Your task to perform on an android device: Play the last video I watched on Youtube Image 0: 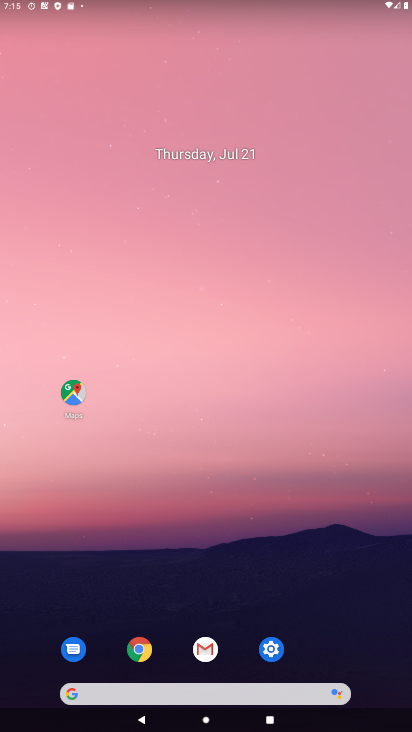
Step 0: drag from (327, 692) to (294, 206)
Your task to perform on an android device: Play the last video I watched on Youtube Image 1: 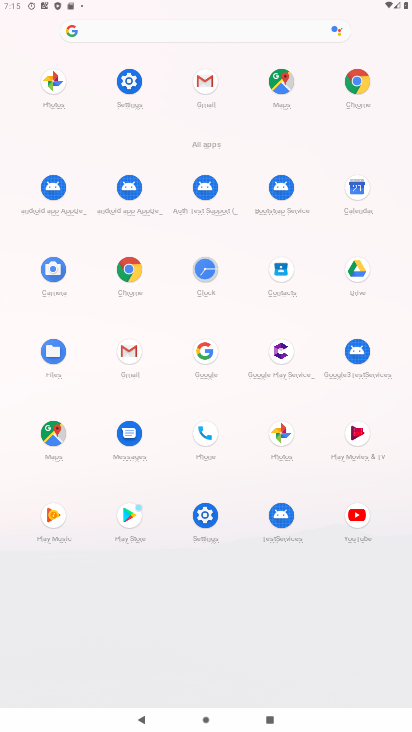
Step 1: click (352, 518)
Your task to perform on an android device: Play the last video I watched on Youtube Image 2: 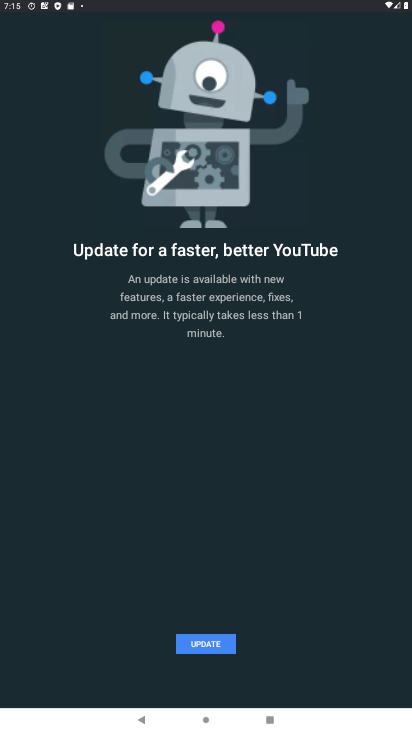
Step 2: click (213, 653)
Your task to perform on an android device: Play the last video I watched on Youtube Image 3: 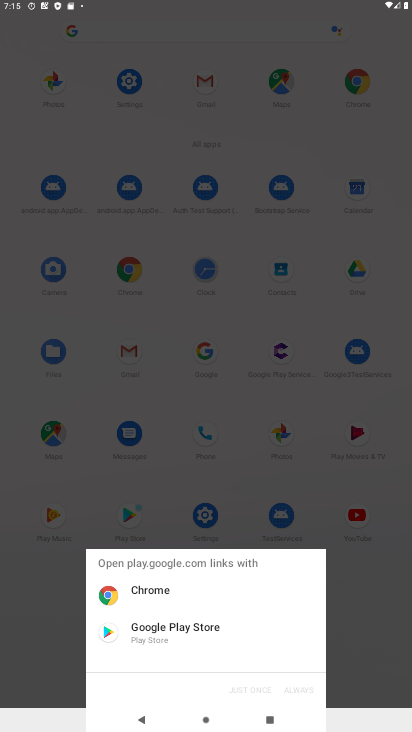
Step 3: click (176, 636)
Your task to perform on an android device: Play the last video I watched on Youtube Image 4: 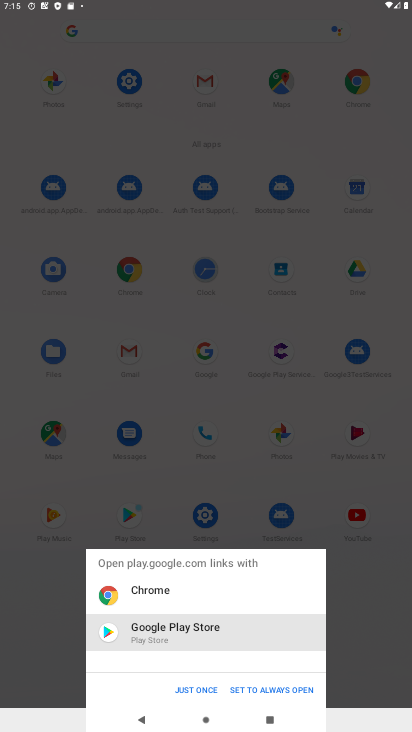
Step 4: click (198, 692)
Your task to perform on an android device: Play the last video I watched on Youtube Image 5: 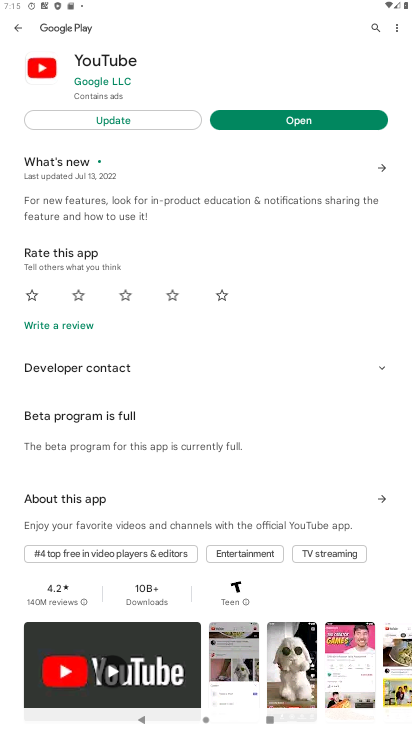
Step 5: click (135, 114)
Your task to perform on an android device: Play the last video I watched on Youtube Image 6: 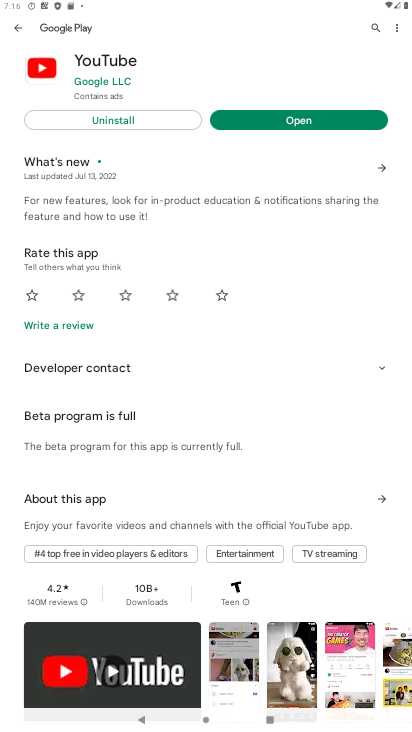
Step 6: click (258, 117)
Your task to perform on an android device: Play the last video I watched on Youtube Image 7: 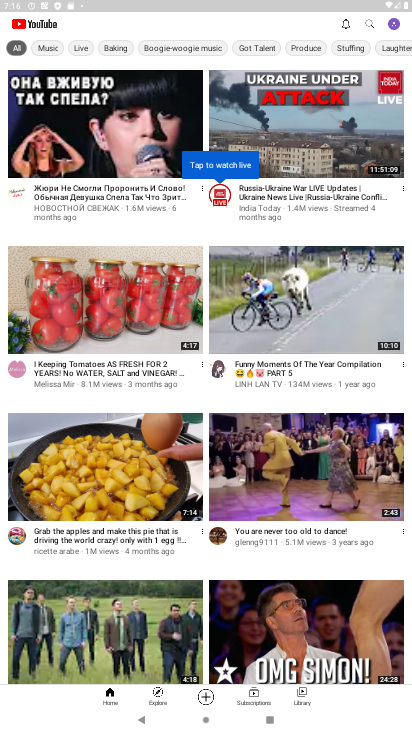
Step 7: click (303, 702)
Your task to perform on an android device: Play the last video I watched on Youtube Image 8: 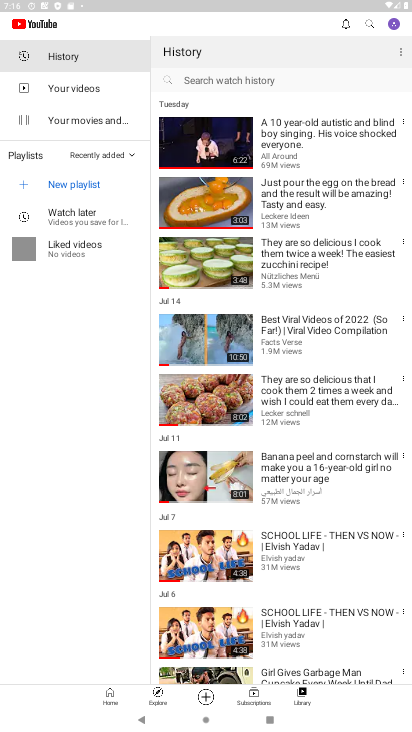
Step 8: click (200, 151)
Your task to perform on an android device: Play the last video I watched on Youtube Image 9: 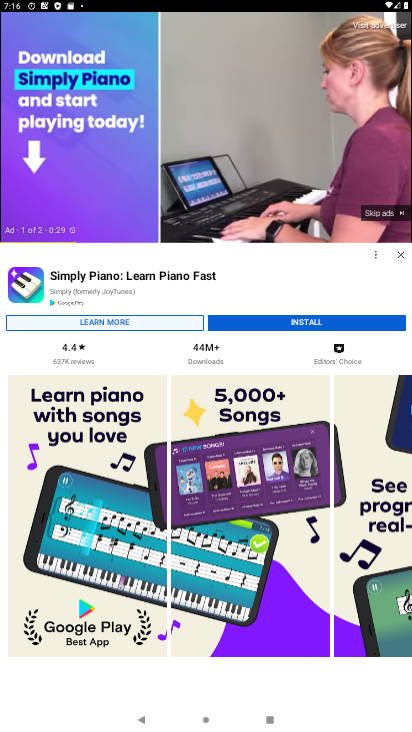
Step 9: click (399, 215)
Your task to perform on an android device: Play the last video I watched on Youtube Image 10: 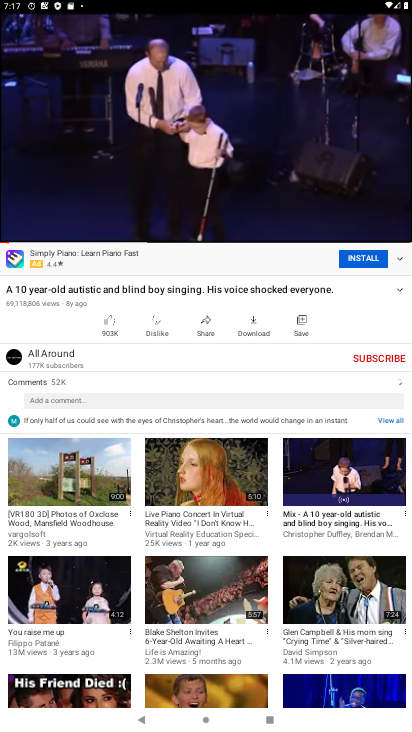
Step 10: task complete